Your task to perform on an android device: toggle wifi Image 0: 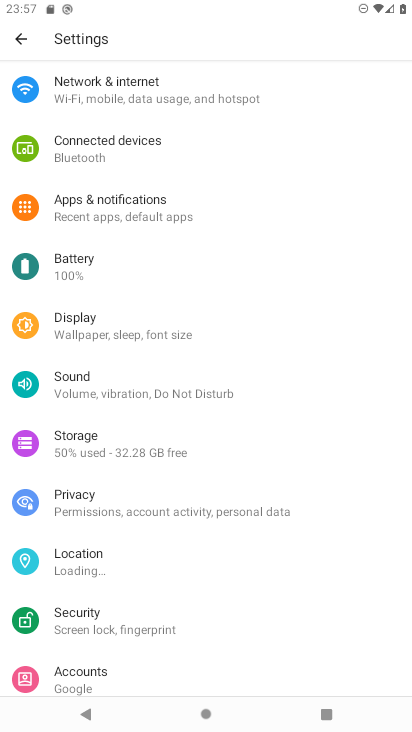
Step 0: press home button
Your task to perform on an android device: toggle wifi Image 1: 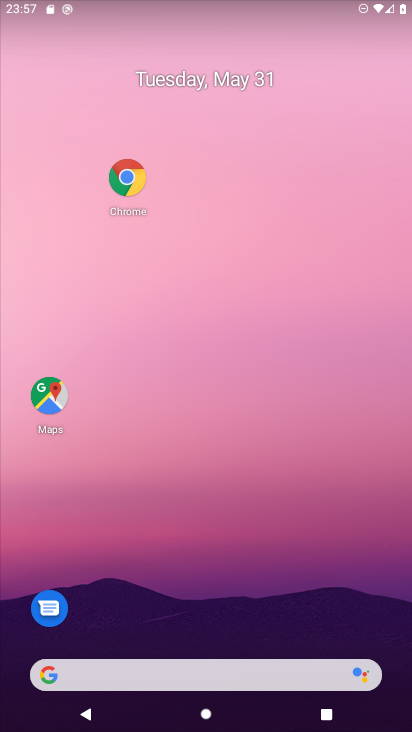
Step 1: drag from (316, 1) to (278, 469)
Your task to perform on an android device: toggle wifi Image 2: 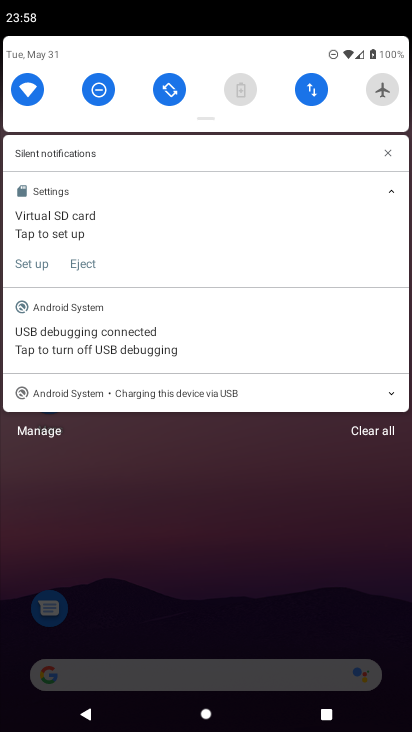
Step 2: click (34, 95)
Your task to perform on an android device: toggle wifi Image 3: 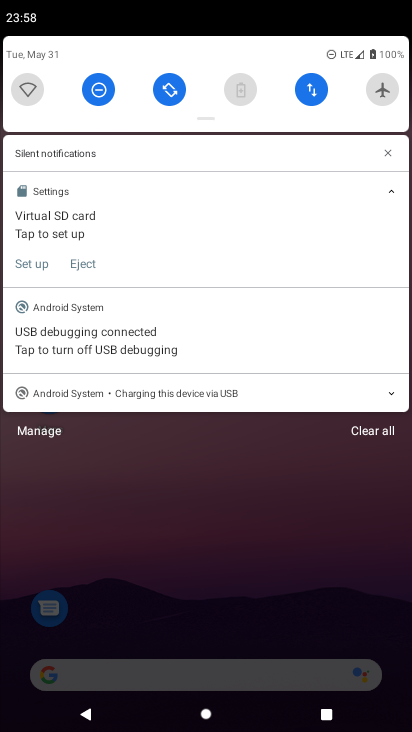
Step 3: task complete